Your task to perform on an android device: find photos in the google photos app Image 0: 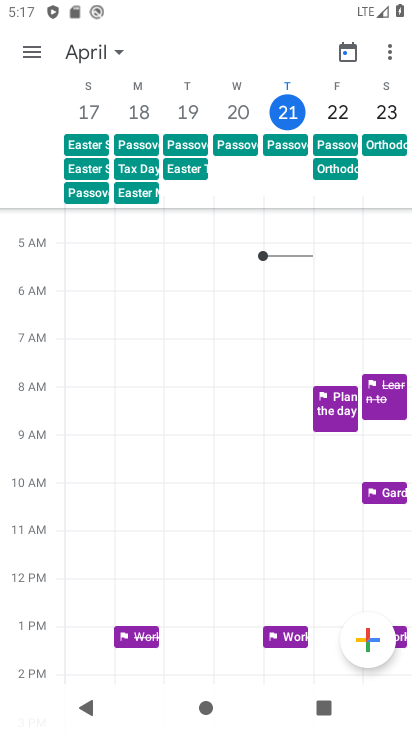
Step 0: drag from (212, 358) to (305, 0)
Your task to perform on an android device: find photos in the google photos app Image 1: 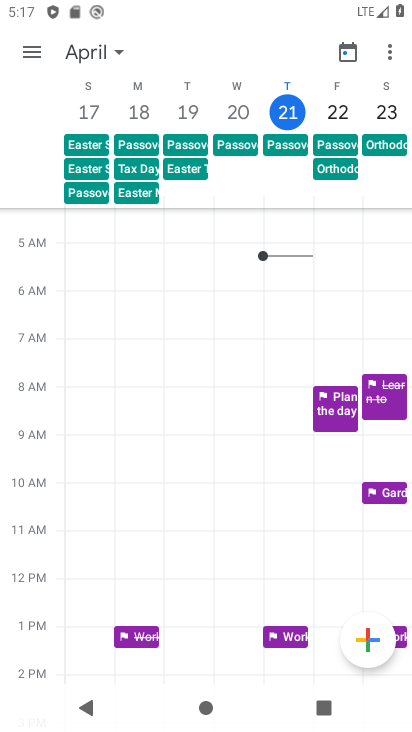
Step 1: drag from (221, 516) to (275, 8)
Your task to perform on an android device: find photos in the google photos app Image 2: 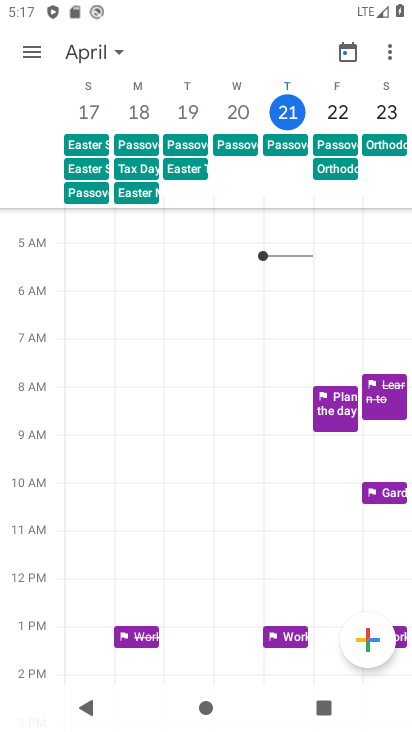
Step 2: press home button
Your task to perform on an android device: find photos in the google photos app Image 3: 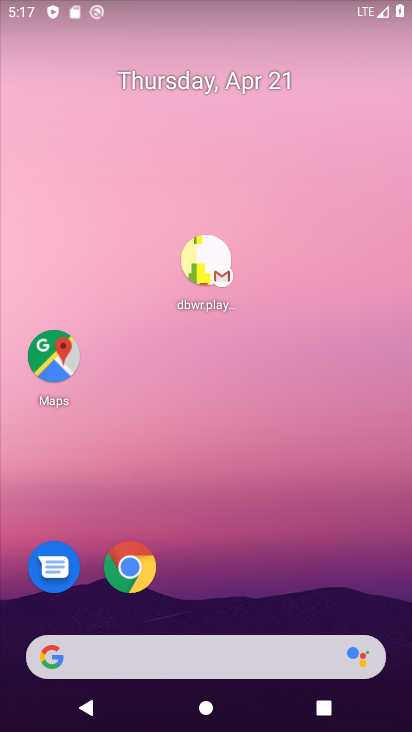
Step 3: drag from (223, 600) to (298, 144)
Your task to perform on an android device: find photos in the google photos app Image 4: 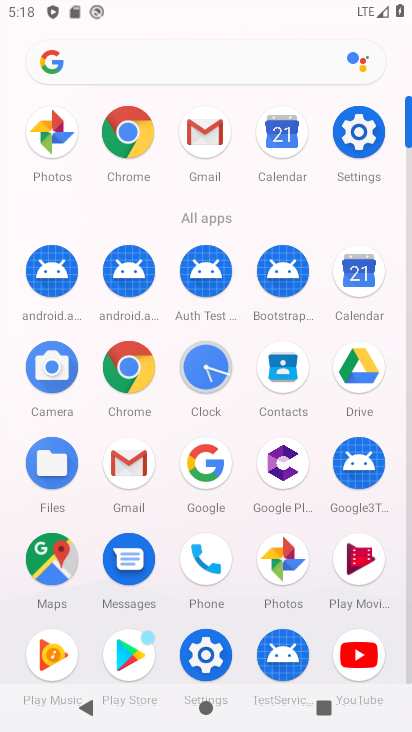
Step 4: drag from (167, 541) to (195, 352)
Your task to perform on an android device: find photos in the google photos app Image 5: 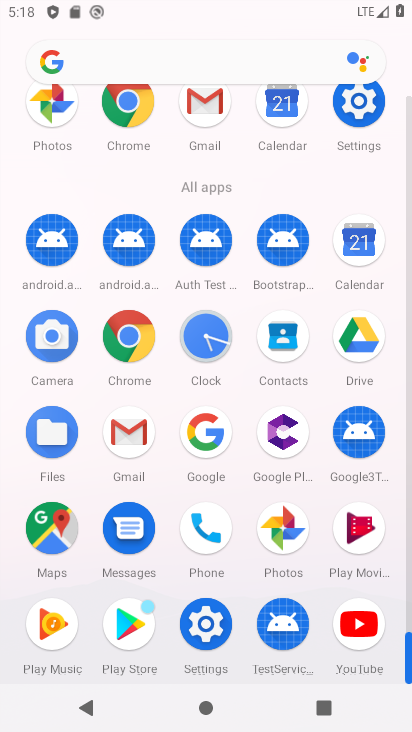
Step 5: click (271, 528)
Your task to perform on an android device: find photos in the google photos app Image 6: 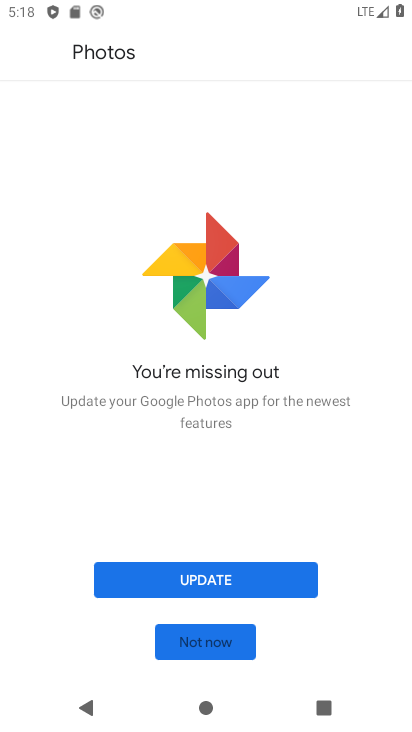
Step 6: click (204, 641)
Your task to perform on an android device: find photos in the google photos app Image 7: 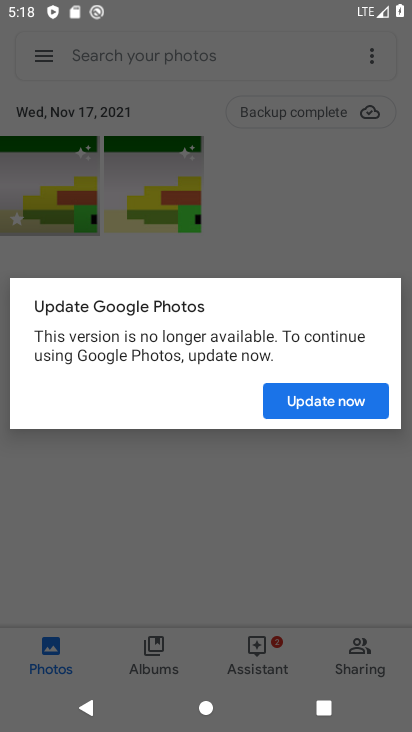
Step 7: click (312, 396)
Your task to perform on an android device: find photos in the google photos app Image 8: 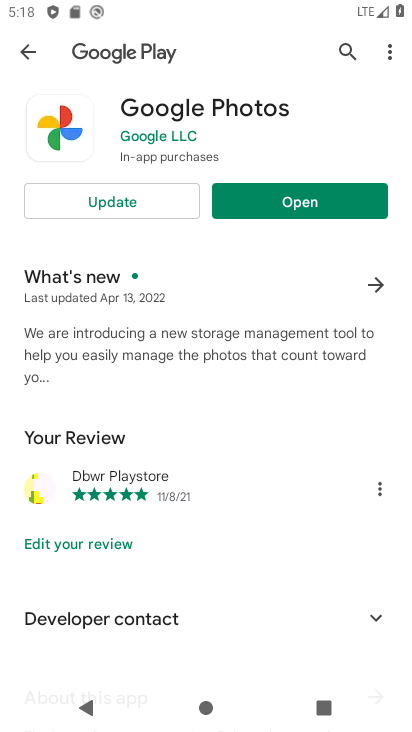
Step 8: click (287, 193)
Your task to perform on an android device: find photos in the google photos app Image 9: 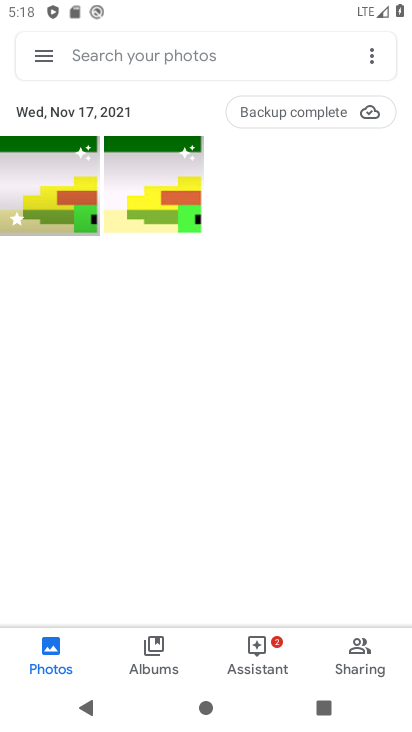
Step 9: task complete